Your task to perform on an android device: Search for a custom made wallet Image 0: 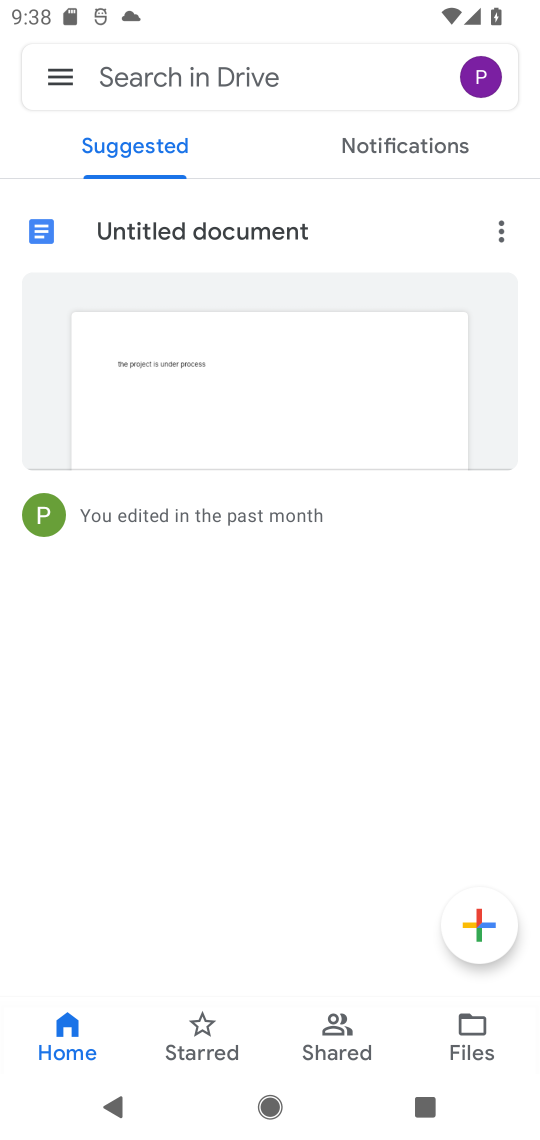
Step 0: press home button
Your task to perform on an android device: Search for a custom made wallet Image 1: 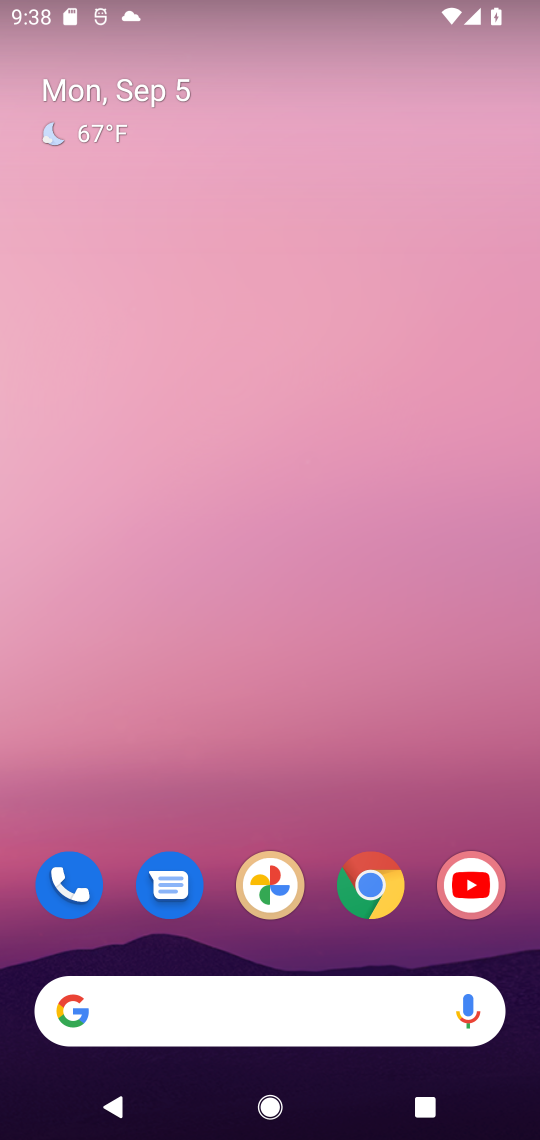
Step 1: drag from (282, 882) to (249, 90)
Your task to perform on an android device: Search for a custom made wallet Image 2: 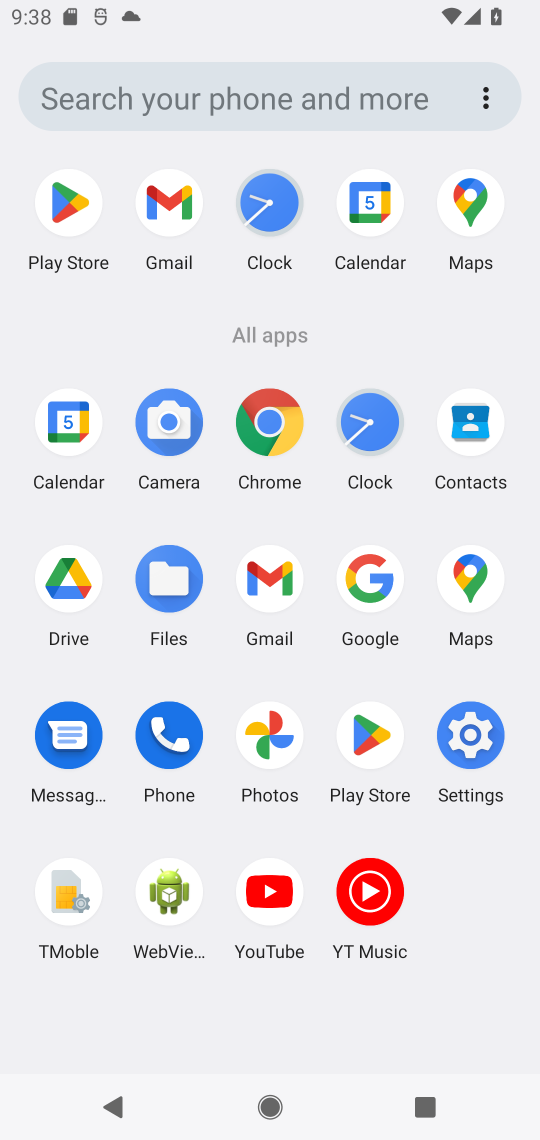
Step 2: click (265, 423)
Your task to perform on an android device: Search for a custom made wallet Image 3: 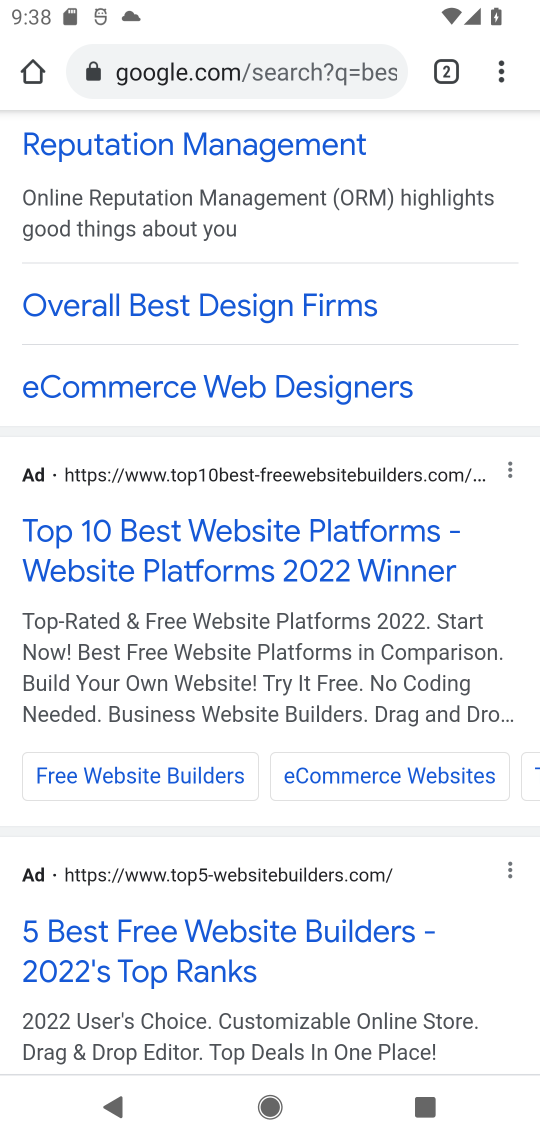
Step 3: drag from (272, 234) to (320, 641)
Your task to perform on an android device: Search for a custom made wallet Image 4: 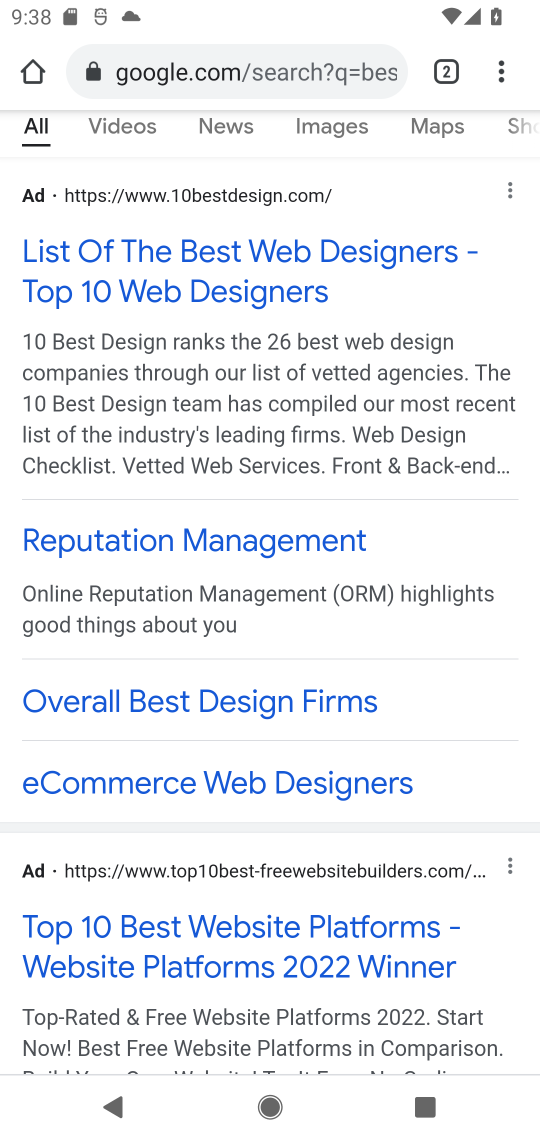
Step 4: drag from (177, 217) to (264, 619)
Your task to perform on an android device: Search for a custom made wallet Image 5: 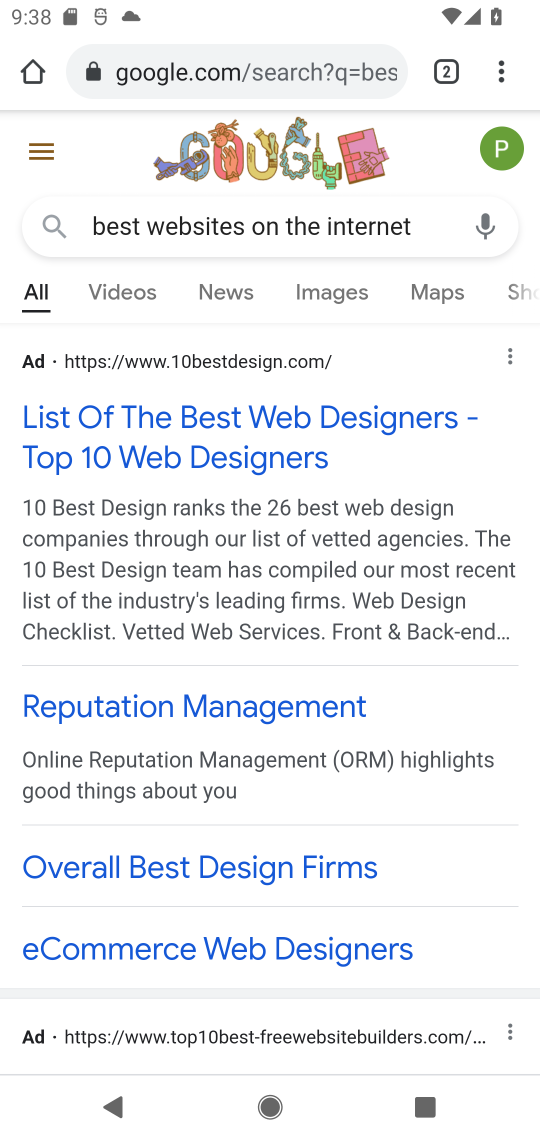
Step 5: click (297, 222)
Your task to perform on an android device: Search for a custom made wallet Image 6: 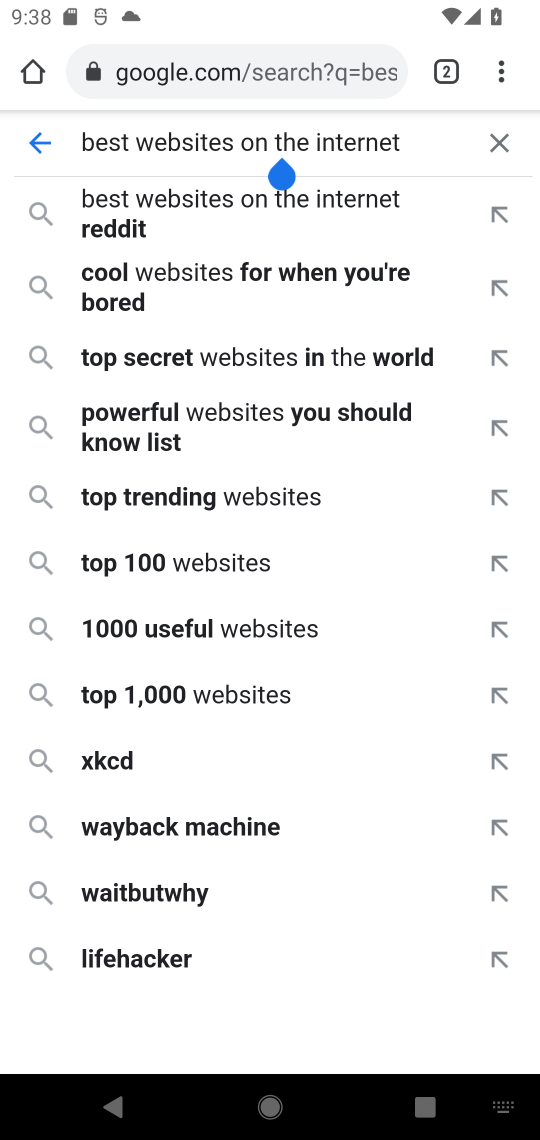
Step 6: click (498, 131)
Your task to perform on an android device: Search for a custom made wallet Image 7: 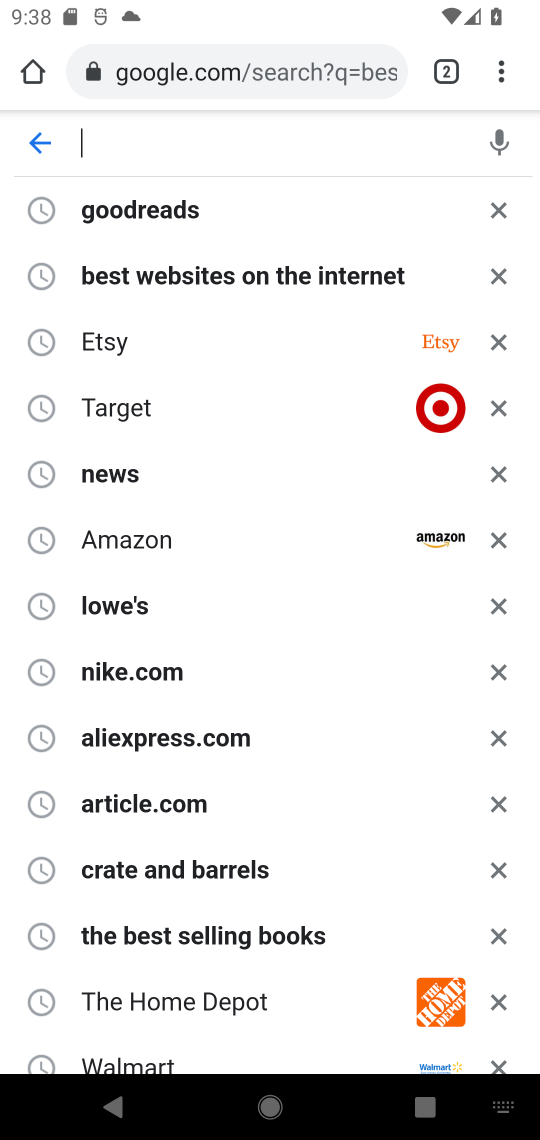
Step 7: type " custom made wallet"
Your task to perform on an android device: Search for a custom made wallet Image 8: 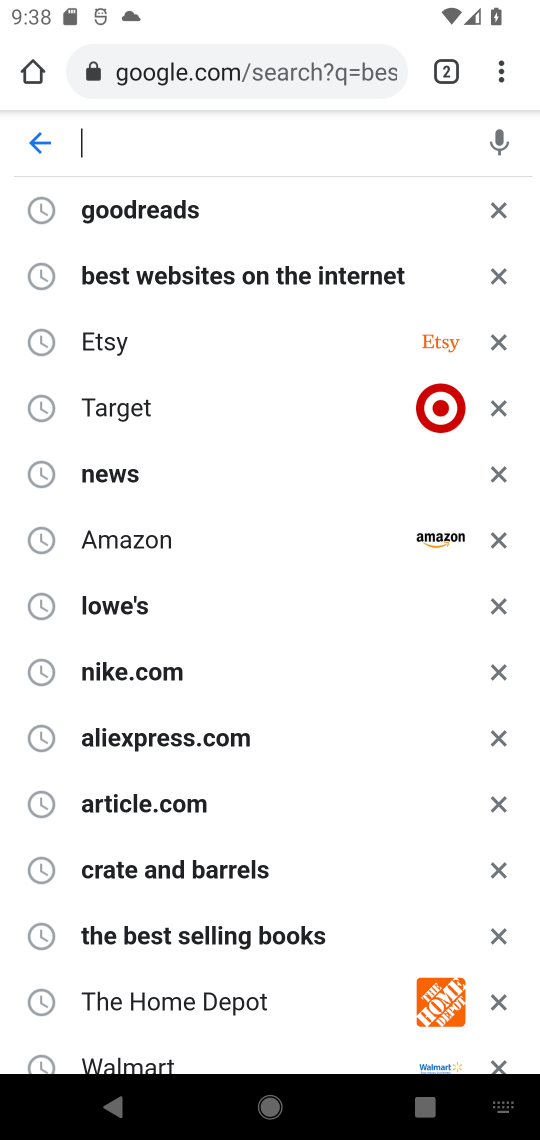
Step 8: type ""
Your task to perform on an android device: Search for a custom made wallet Image 9: 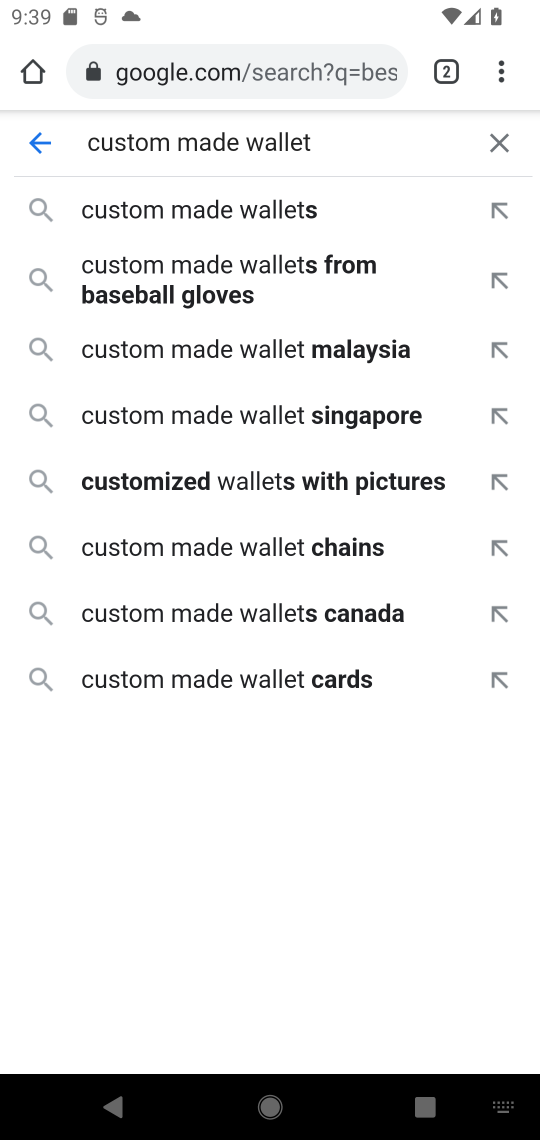
Step 9: click (214, 213)
Your task to perform on an android device: Search for a custom made wallet Image 10: 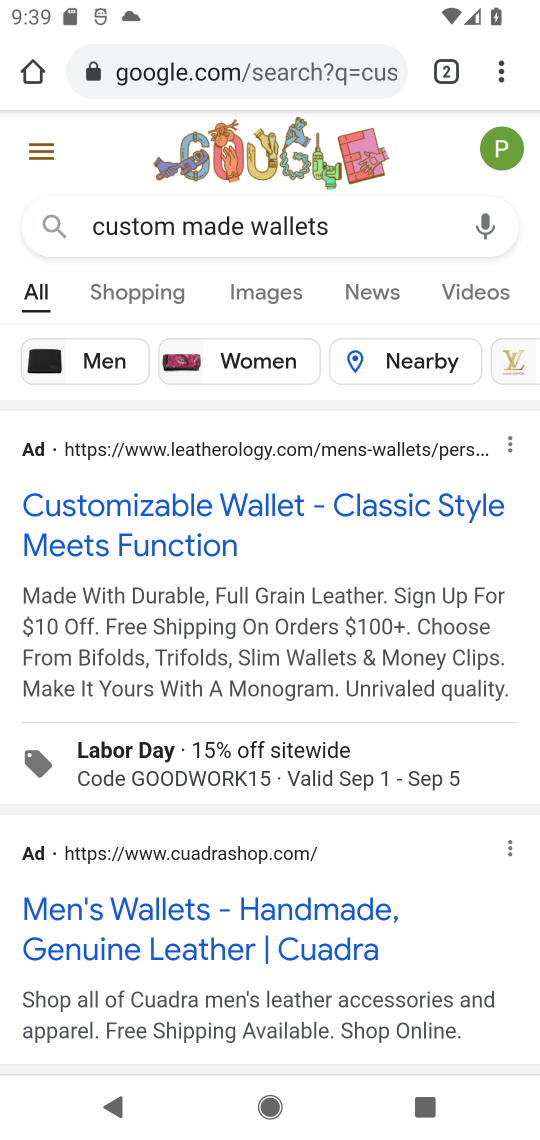
Step 10: click (113, 525)
Your task to perform on an android device: Search for a custom made wallet Image 11: 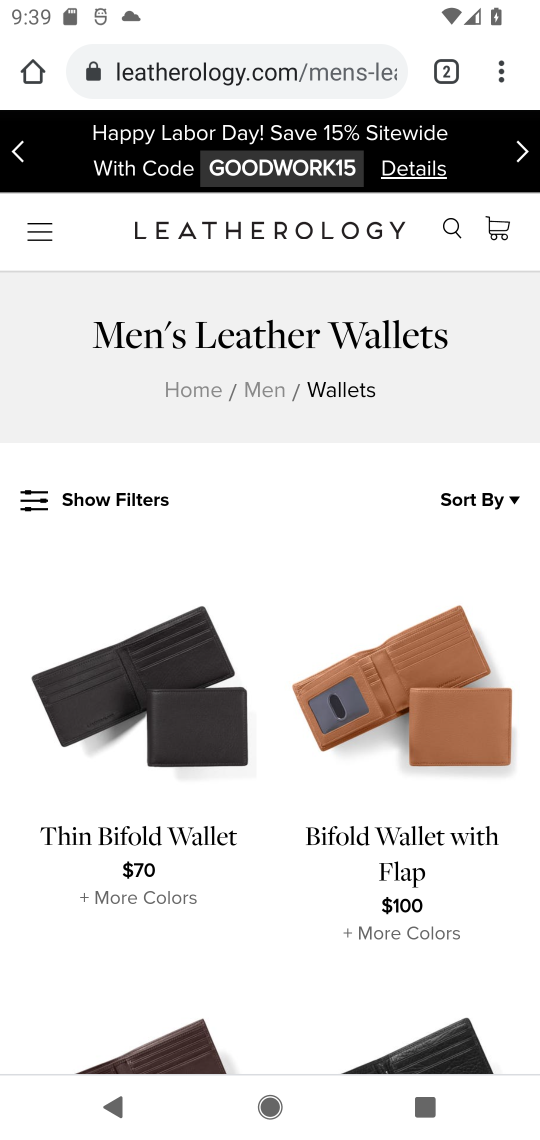
Step 11: task complete